Your task to perform on an android device: Open privacy settings Image 0: 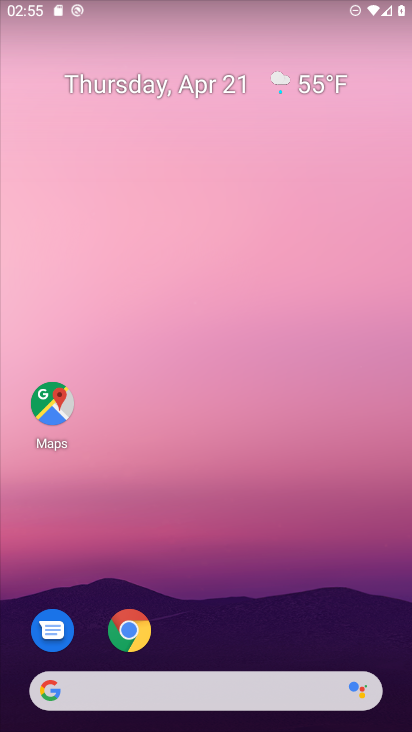
Step 0: drag from (244, 627) to (276, 95)
Your task to perform on an android device: Open privacy settings Image 1: 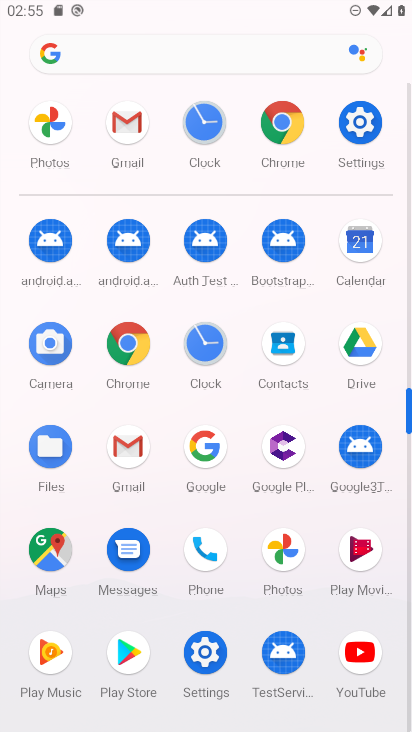
Step 1: click (359, 160)
Your task to perform on an android device: Open privacy settings Image 2: 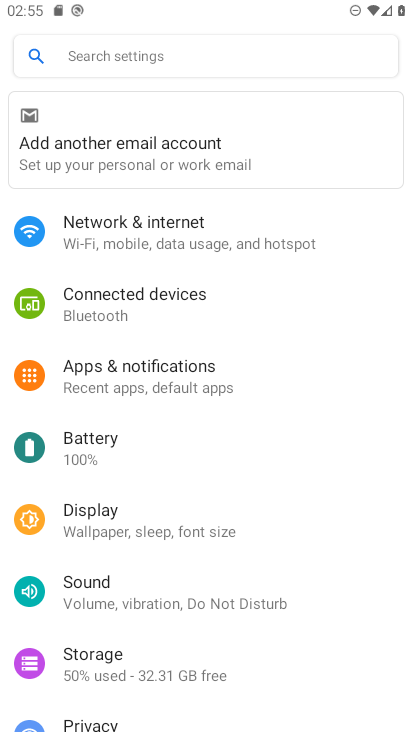
Step 2: drag from (278, 646) to (250, 27)
Your task to perform on an android device: Open privacy settings Image 3: 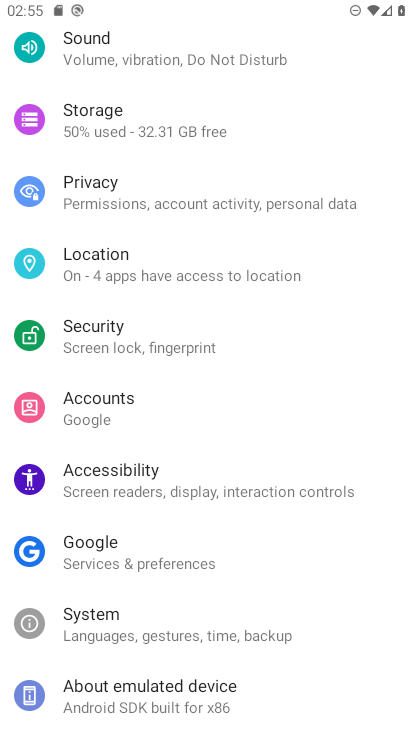
Step 3: click (194, 185)
Your task to perform on an android device: Open privacy settings Image 4: 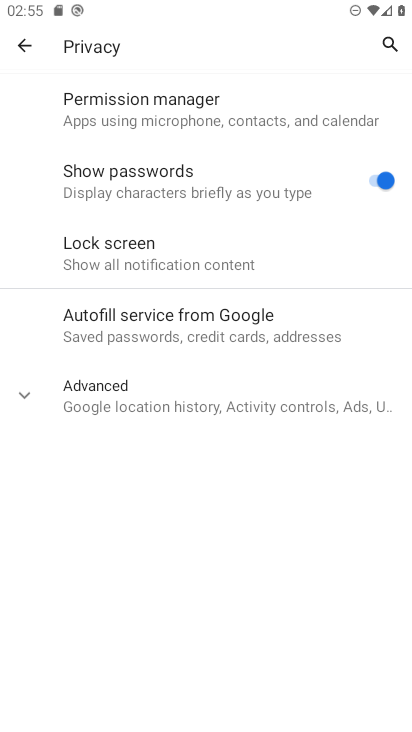
Step 4: task complete